Your task to perform on an android device: Open Google Chrome and open the bookmarks view Image 0: 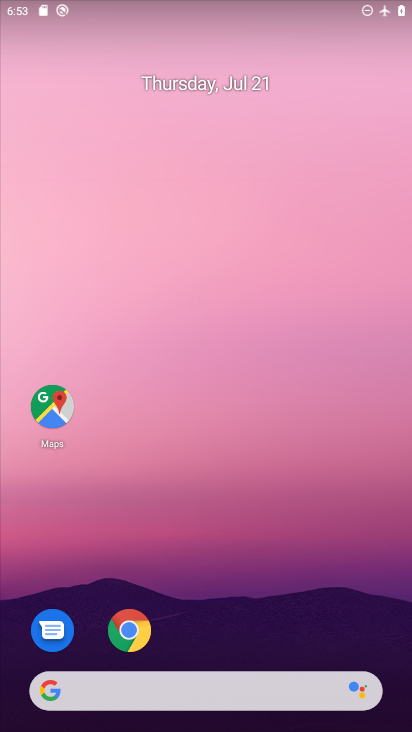
Step 0: click (130, 632)
Your task to perform on an android device: Open Google Chrome and open the bookmarks view Image 1: 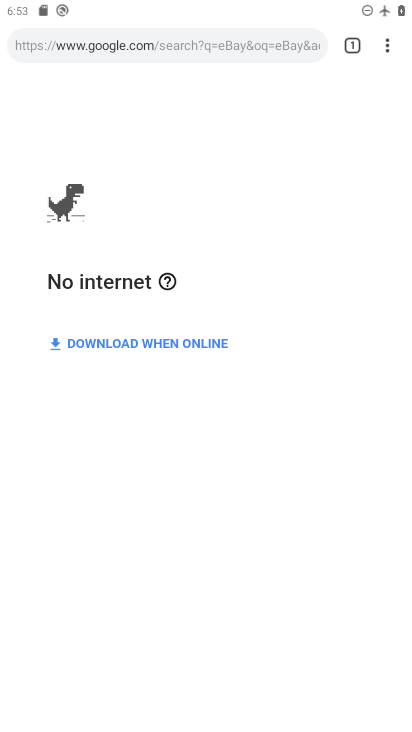
Step 1: click (387, 47)
Your task to perform on an android device: Open Google Chrome and open the bookmarks view Image 2: 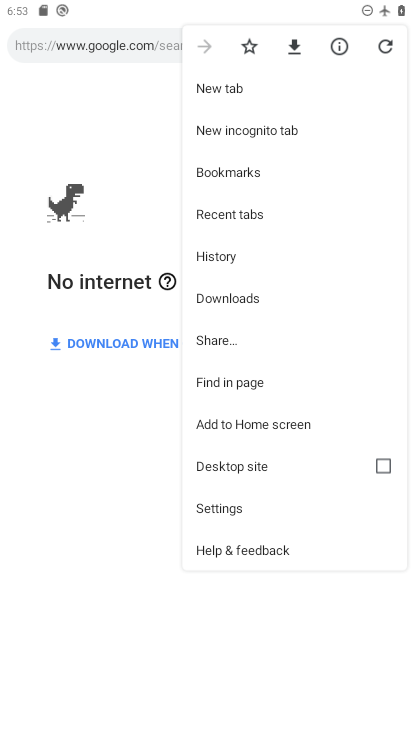
Step 2: click (254, 177)
Your task to perform on an android device: Open Google Chrome and open the bookmarks view Image 3: 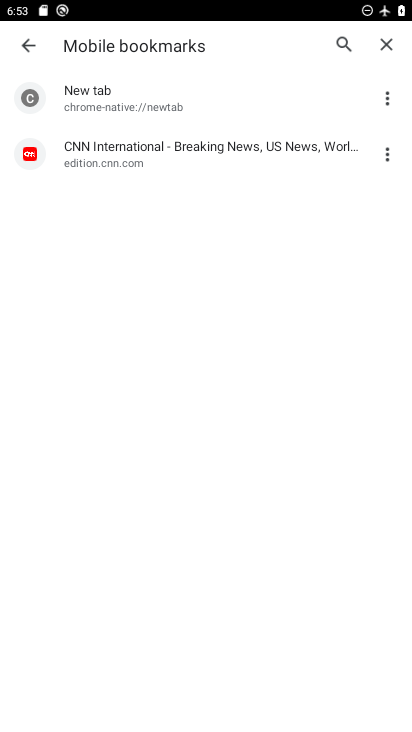
Step 3: task complete